Your task to perform on an android device: What is the news today? Image 0: 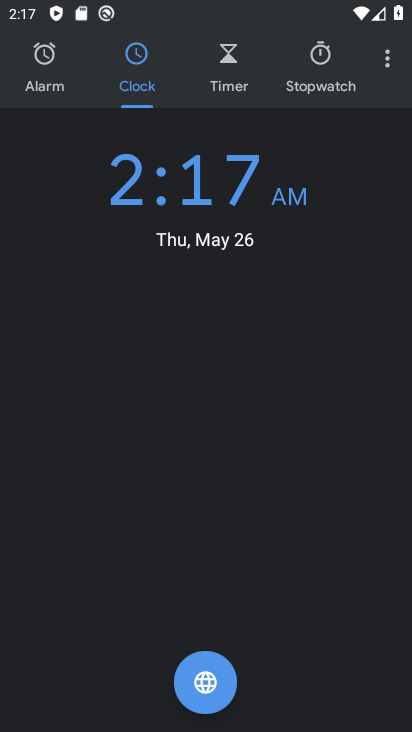
Step 0: press home button
Your task to perform on an android device: What is the news today? Image 1: 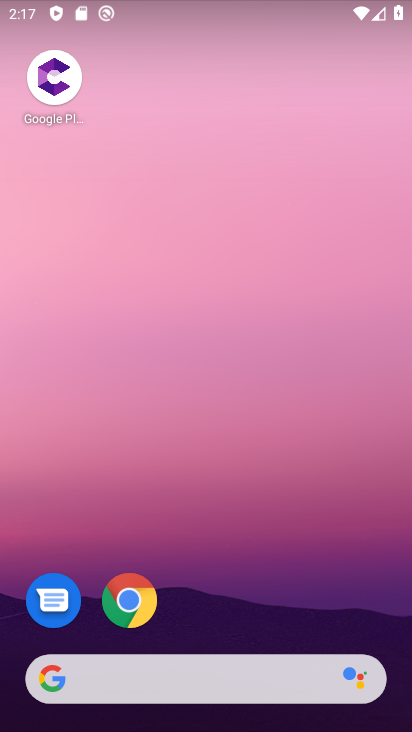
Step 1: task complete